Your task to perform on an android device: change the clock display to digital Image 0: 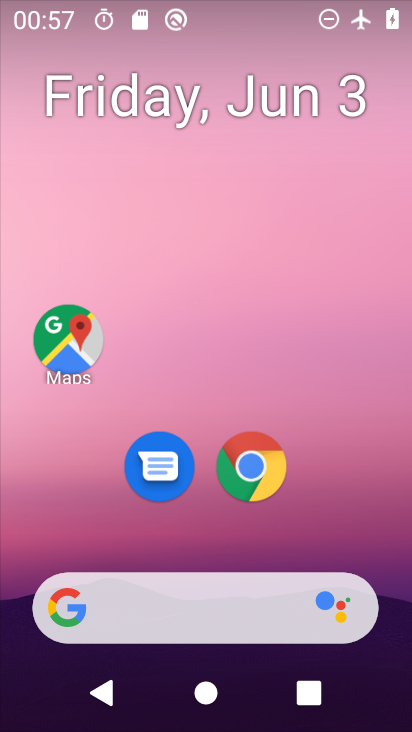
Step 0: drag from (193, 547) to (208, 181)
Your task to perform on an android device: change the clock display to digital Image 1: 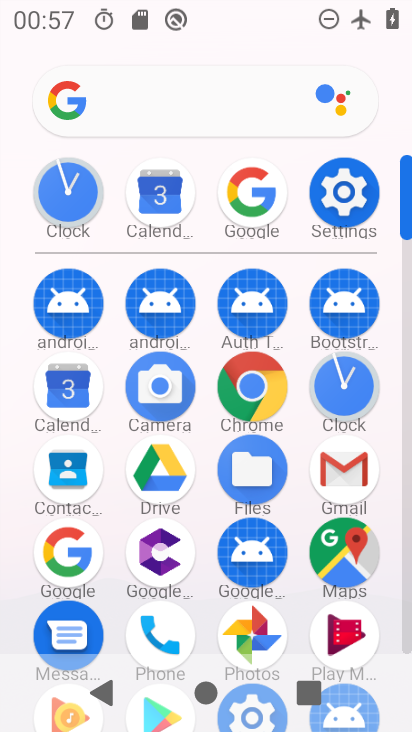
Step 1: click (338, 409)
Your task to perform on an android device: change the clock display to digital Image 2: 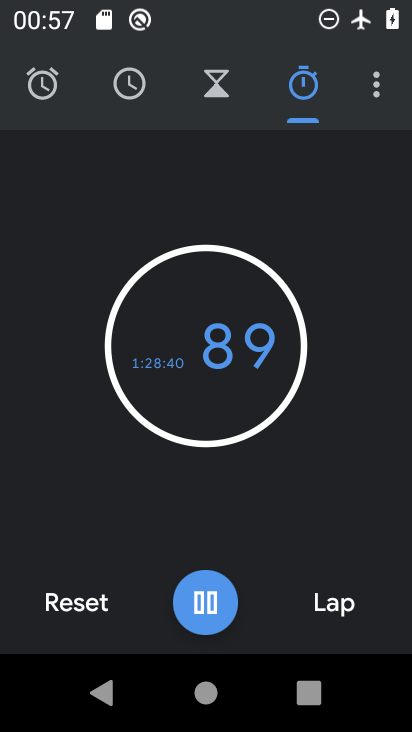
Step 2: click (371, 81)
Your task to perform on an android device: change the clock display to digital Image 3: 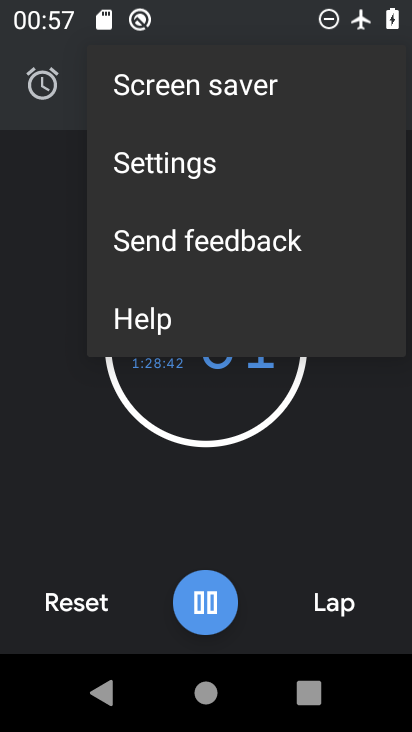
Step 3: click (230, 160)
Your task to perform on an android device: change the clock display to digital Image 4: 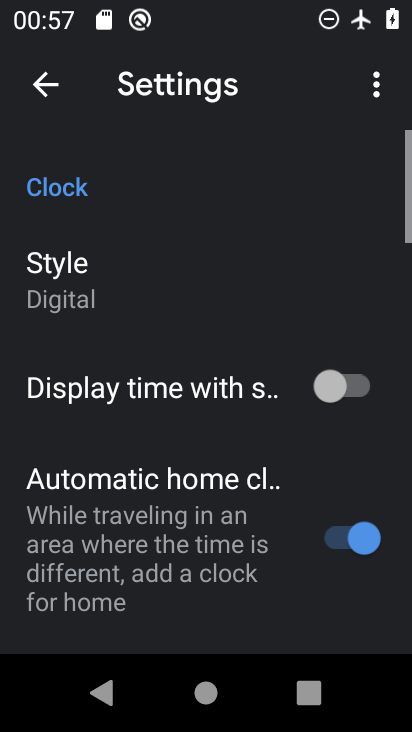
Step 4: click (119, 254)
Your task to perform on an android device: change the clock display to digital Image 5: 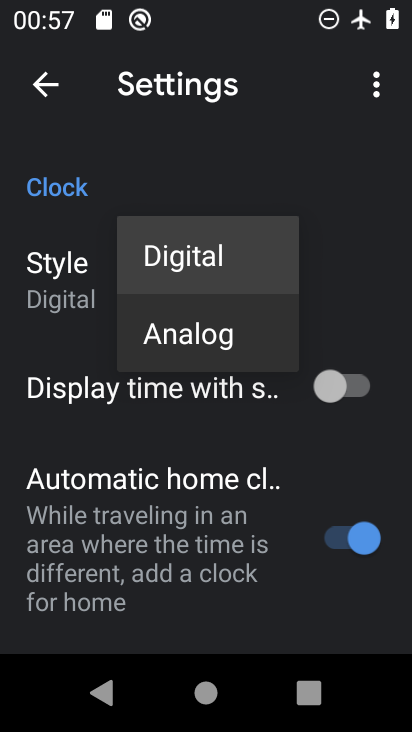
Step 5: task complete